Your task to perform on an android device: toggle pop-ups in chrome Image 0: 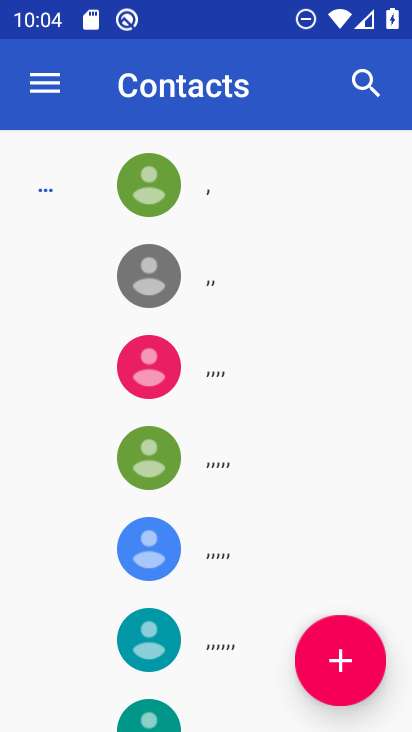
Step 0: press home button
Your task to perform on an android device: toggle pop-ups in chrome Image 1: 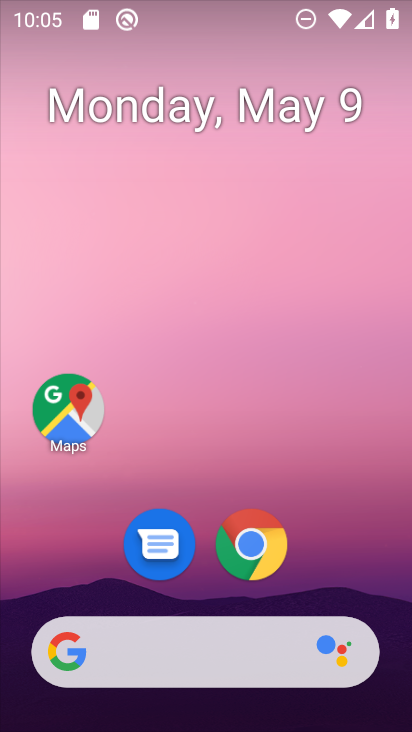
Step 1: click (246, 546)
Your task to perform on an android device: toggle pop-ups in chrome Image 2: 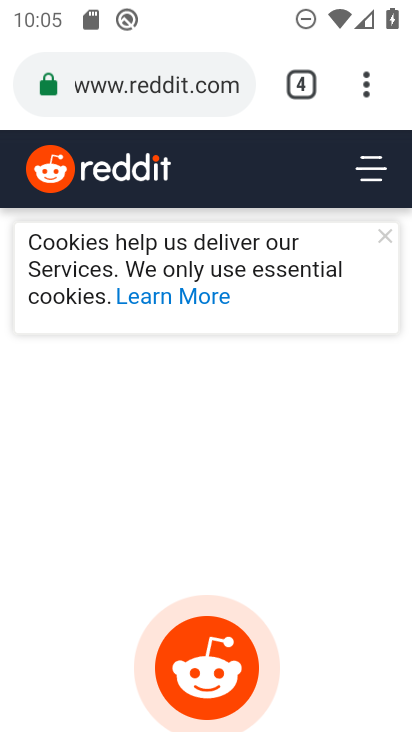
Step 2: click (365, 84)
Your task to perform on an android device: toggle pop-ups in chrome Image 3: 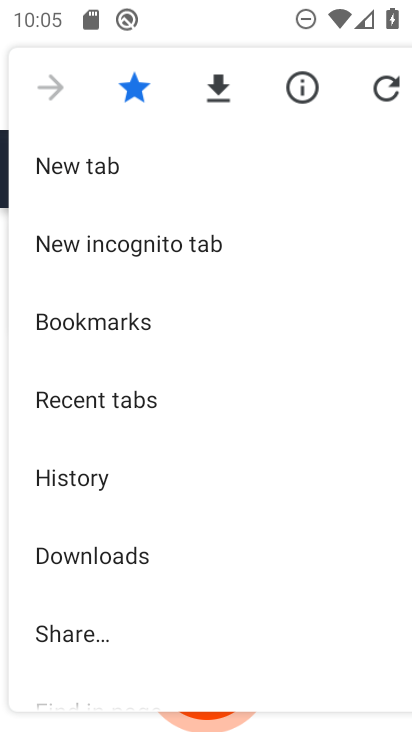
Step 3: drag from (210, 496) to (187, 166)
Your task to perform on an android device: toggle pop-ups in chrome Image 4: 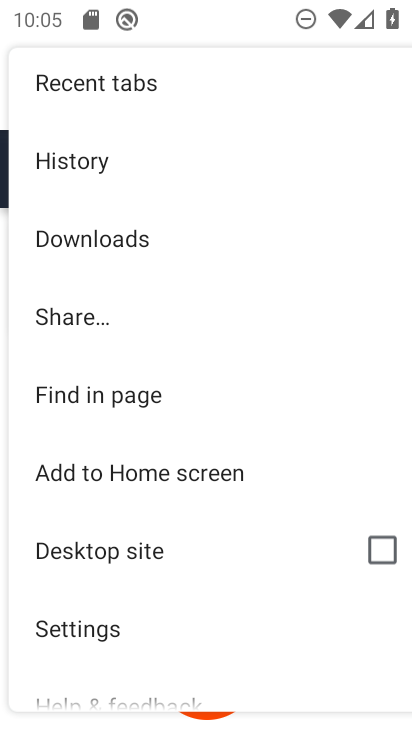
Step 4: drag from (224, 543) to (218, 214)
Your task to perform on an android device: toggle pop-ups in chrome Image 5: 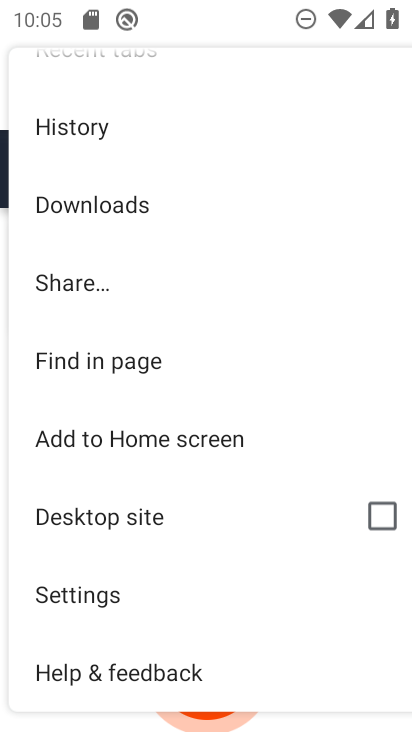
Step 5: click (101, 597)
Your task to perform on an android device: toggle pop-ups in chrome Image 6: 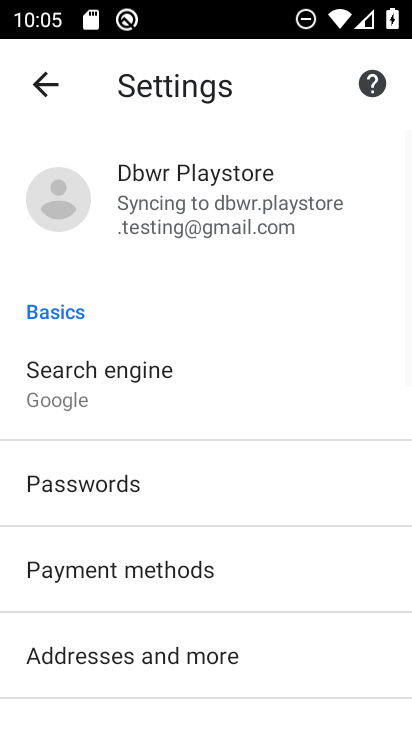
Step 6: drag from (311, 530) to (258, 58)
Your task to perform on an android device: toggle pop-ups in chrome Image 7: 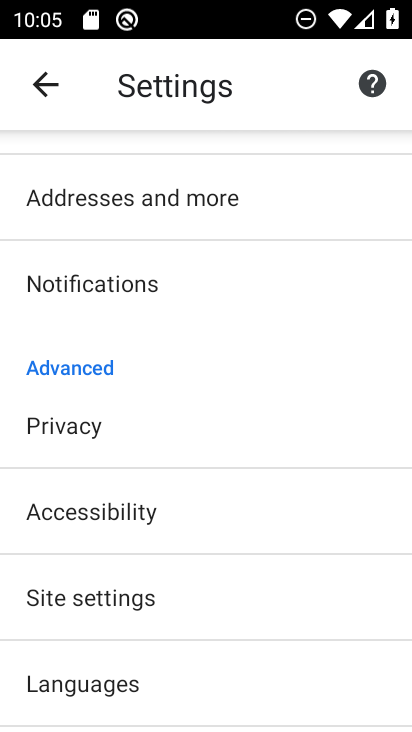
Step 7: drag from (247, 585) to (203, 253)
Your task to perform on an android device: toggle pop-ups in chrome Image 8: 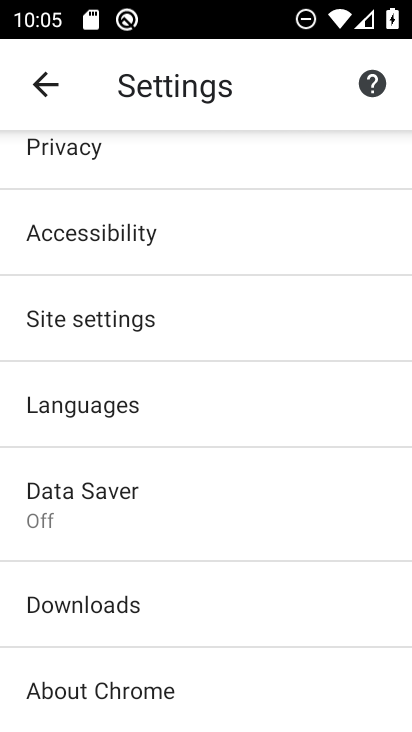
Step 8: click (101, 315)
Your task to perform on an android device: toggle pop-ups in chrome Image 9: 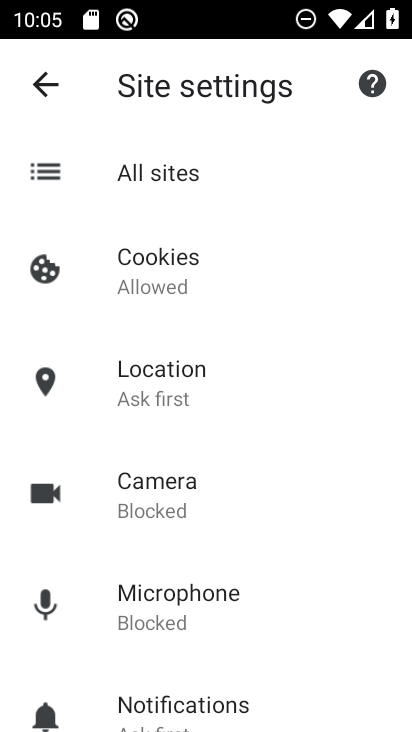
Step 9: drag from (263, 562) to (261, 221)
Your task to perform on an android device: toggle pop-ups in chrome Image 10: 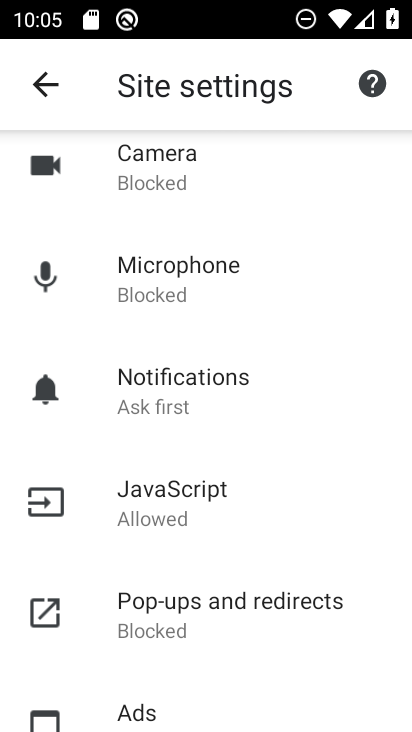
Step 10: click (181, 605)
Your task to perform on an android device: toggle pop-ups in chrome Image 11: 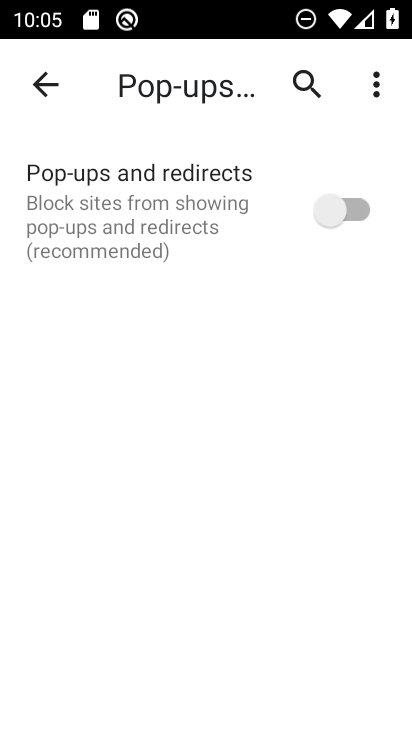
Step 11: click (341, 207)
Your task to perform on an android device: toggle pop-ups in chrome Image 12: 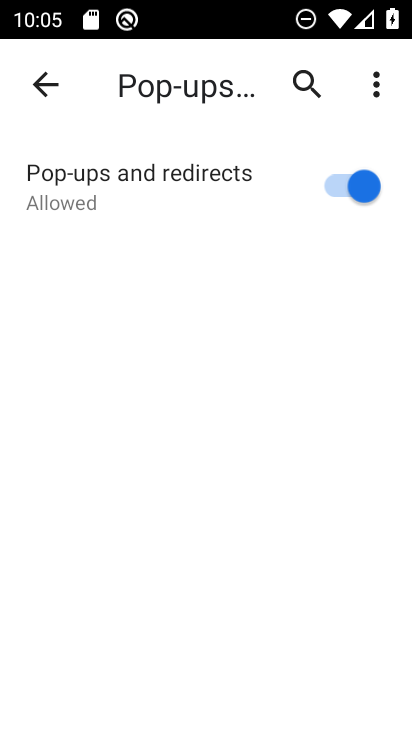
Step 12: task complete